Your task to perform on an android device: Open wifi settings Image 0: 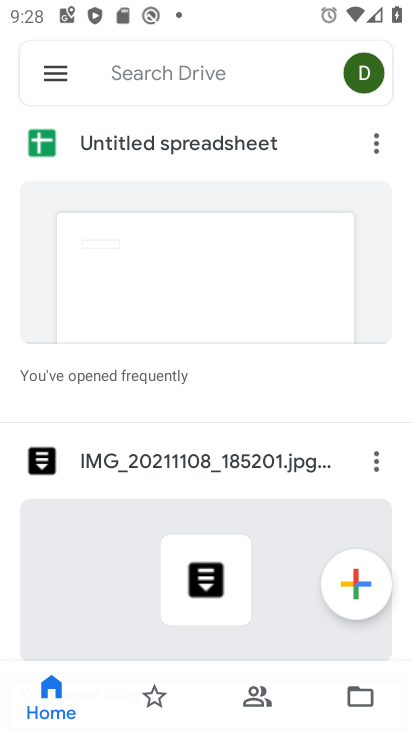
Step 0: press home button
Your task to perform on an android device: Open wifi settings Image 1: 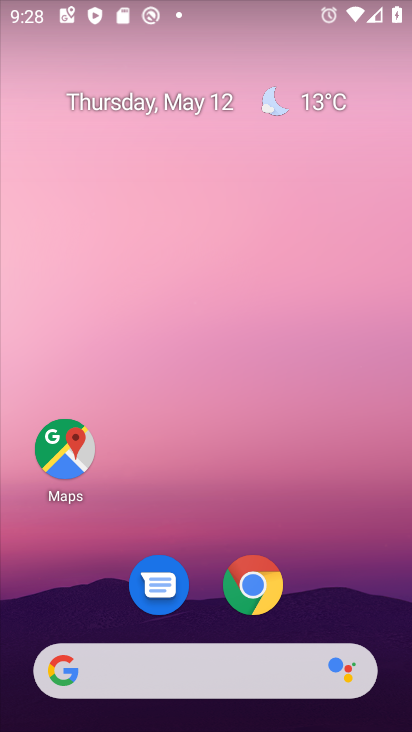
Step 1: drag from (203, 510) to (218, 42)
Your task to perform on an android device: Open wifi settings Image 2: 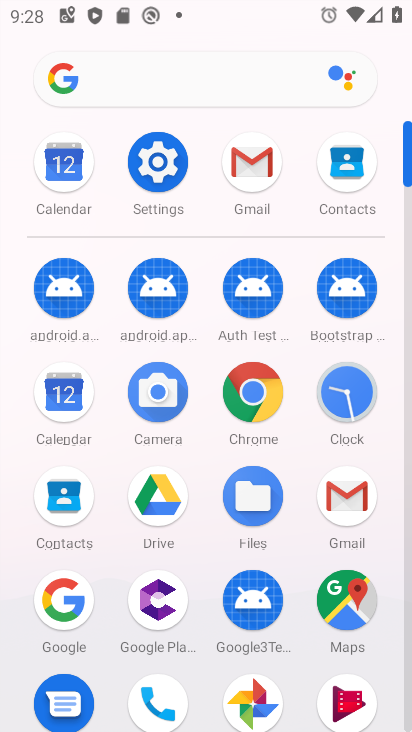
Step 2: click (175, 157)
Your task to perform on an android device: Open wifi settings Image 3: 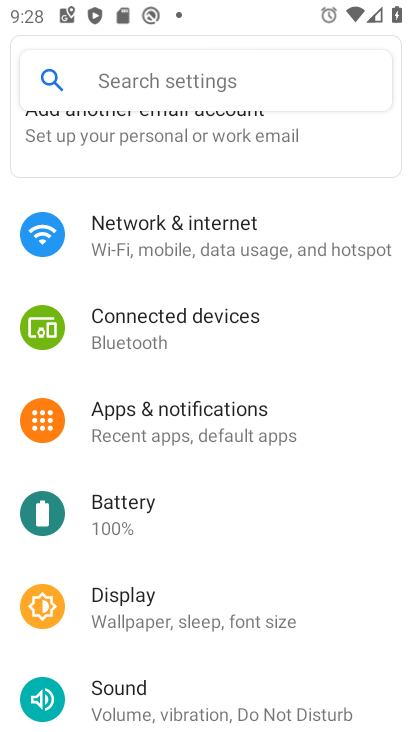
Step 3: drag from (197, 304) to (314, 501)
Your task to perform on an android device: Open wifi settings Image 4: 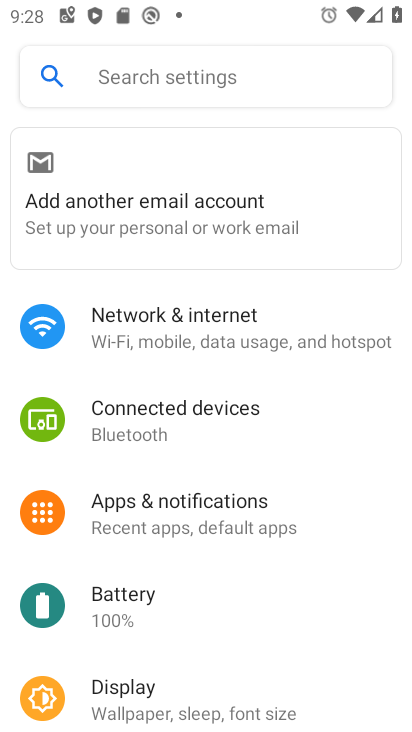
Step 4: click (221, 332)
Your task to perform on an android device: Open wifi settings Image 5: 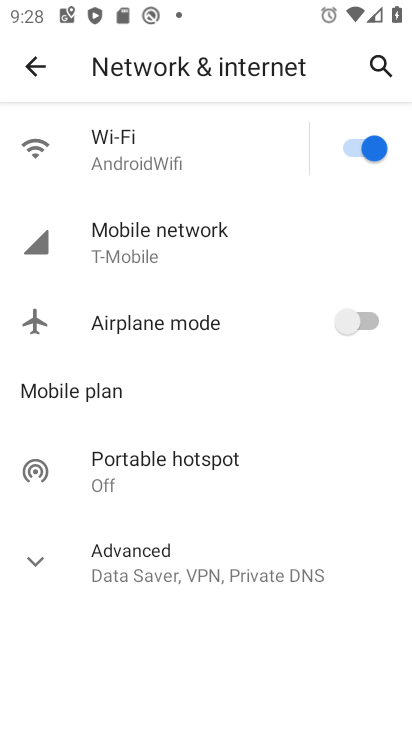
Step 5: click (200, 152)
Your task to perform on an android device: Open wifi settings Image 6: 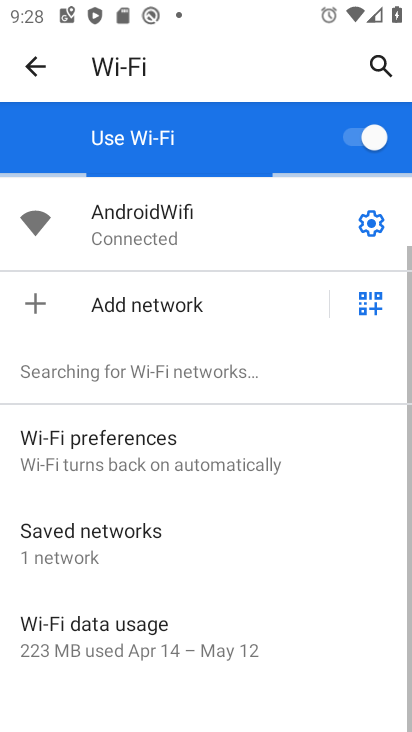
Step 6: task complete